Your task to perform on an android device: Open Youtube and go to the subscriptions tab Image 0: 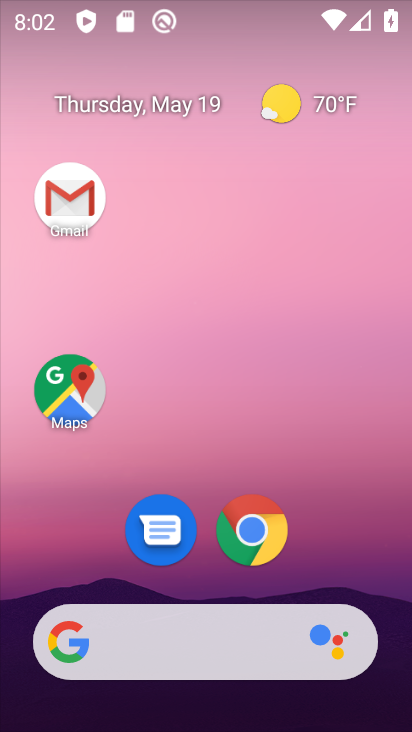
Step 0: drag from (332, 483) to (323, 47)
Your task to perform on an android device: Open Youtube and go to the subscriptions tab Image 1: 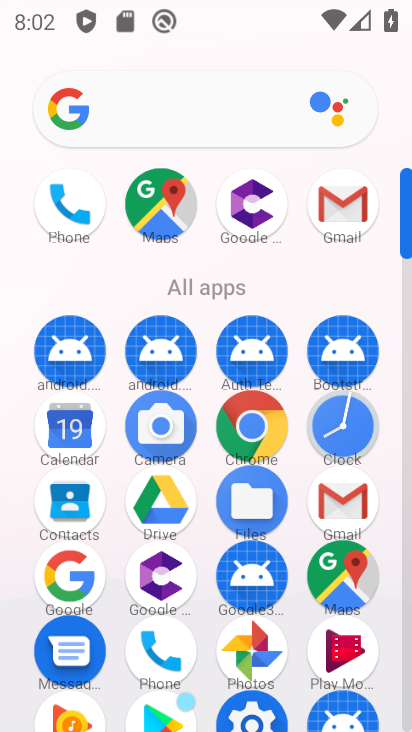
Step 1: drag from (234, 519) to (278, 112)
Your task to perform on an android device: Open Youtube and go to the subscriptions tab Image 2: 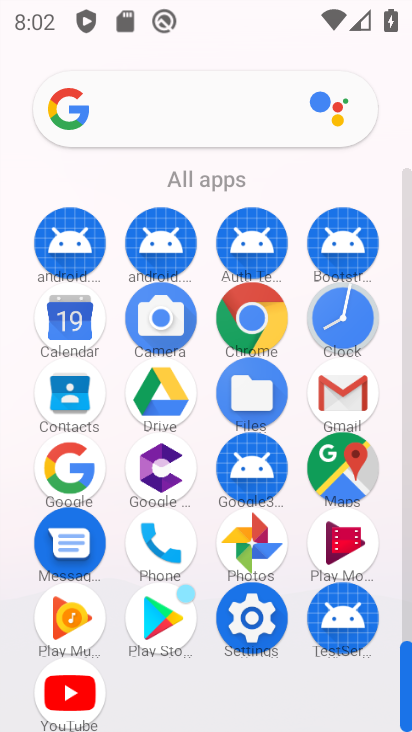
Step 2: click (87, 684)
Your task to perform on an android device: Open Youtube and go to the subscriptions tab Image 3: 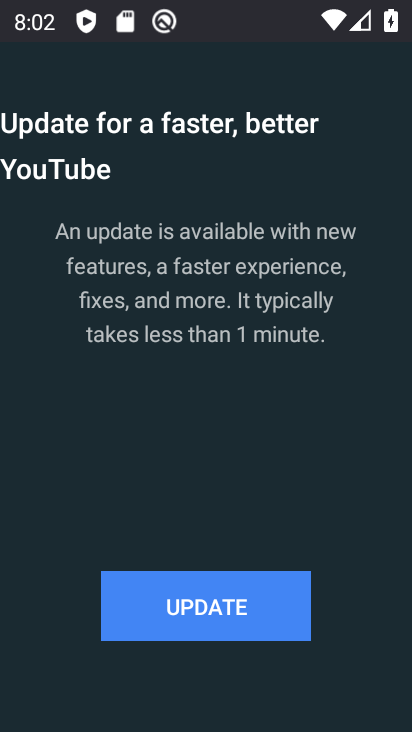
Step 3: drag from (272, 593) to (171, 593)
Your task to perform on an android device: Open Youtube and go to the subscriptions tab Image 4: 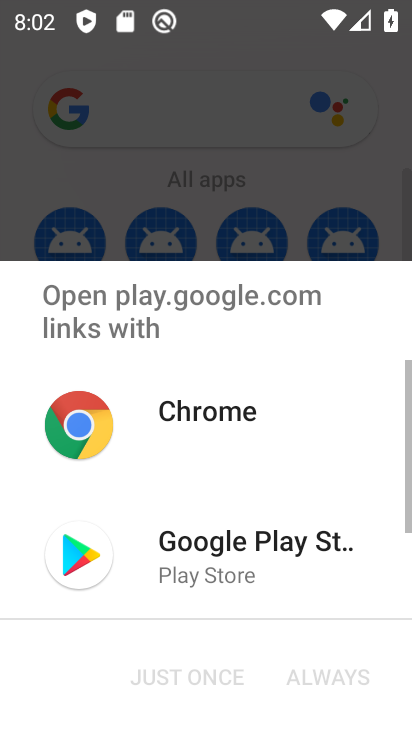
Step 4: click (212, 535)
Your task to perform on an android device: Open Youtube and go to the subscriptions tab Image 5: 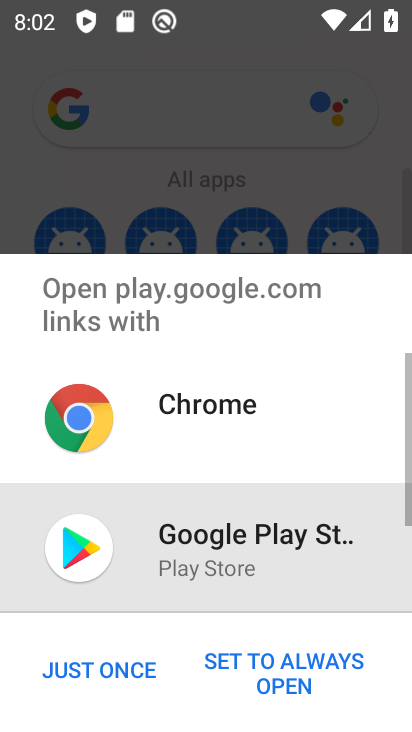
Step 5: click (212, 535)
Your task to perform on an android device: Open Youtube and go to the subscriptions tab Image 6: 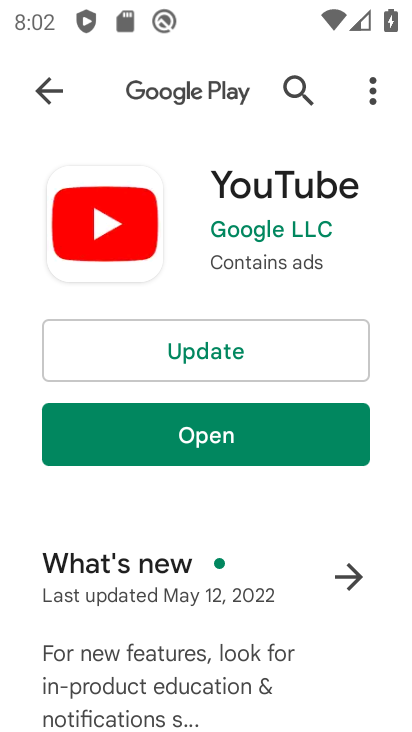
Step 6: click (268, 341)
Your task to perform on an android device: Open Youtube and go to the subscriptions tab Image 7: 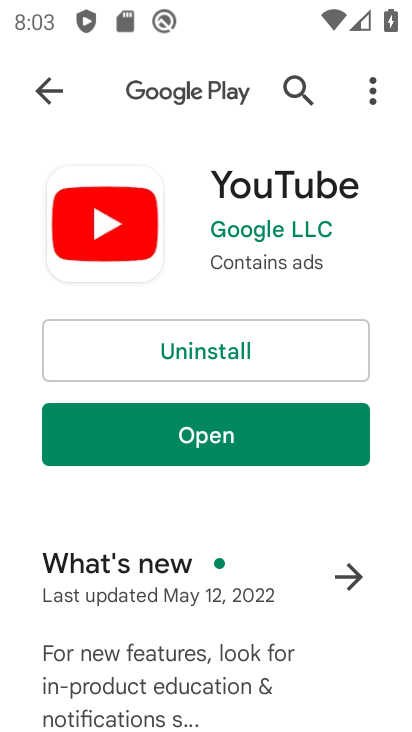
Step 7: click (109, 442)
Your task to perform on an android device: Open Youtube and go to the subscriptions tab Image 8: 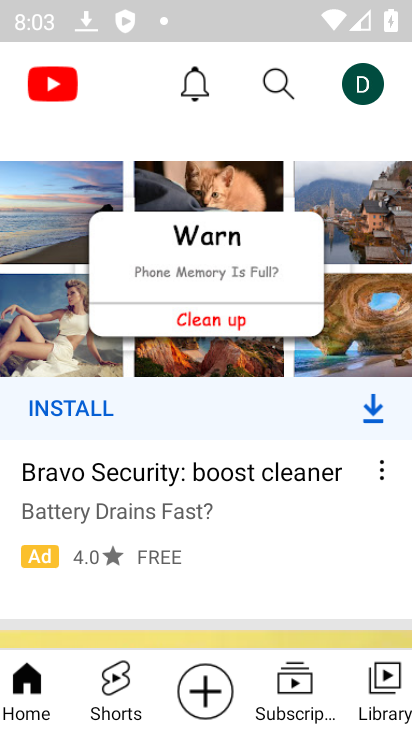
Step 8: click (294, 677)
Your task to perform on an android device: Open Youtube and go to the subscriptions tab Image 9: 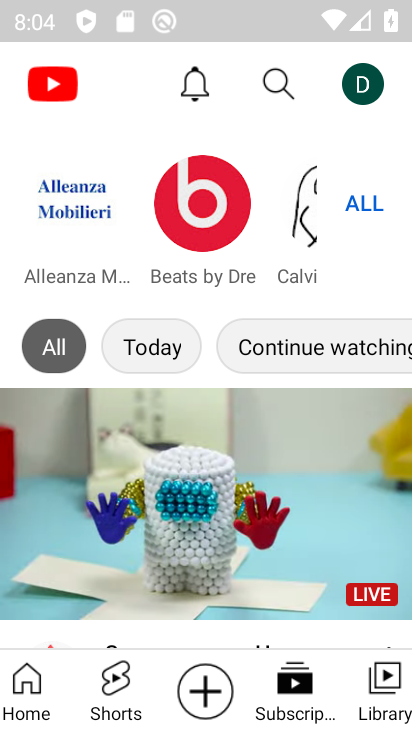
Step 9: task complete